Your task to perform on an android device: Open the phone app and click the voicemail tab. Image 0: 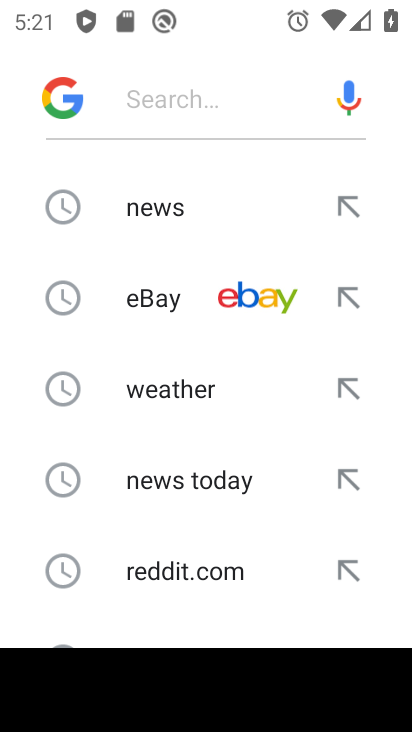
Step 0: press home button
Your task to perform on an android device: Open the phone app and click the voicemail tab. Image 1: 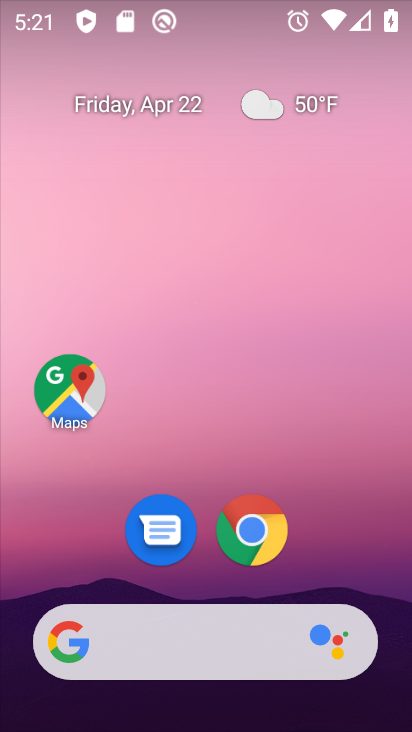
Step 1: drag from (319, 498) to (312, 109)
Your task to perform on an android device: Open the phone app and click the voicemail tab. Image 2: 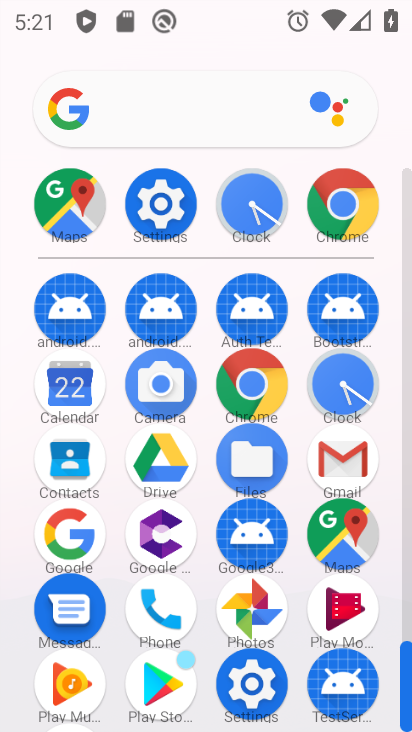
Step 2: click (164, 616)
Your task to perform on an android device: Open the phone app and click the voicemail tab. Image 3: 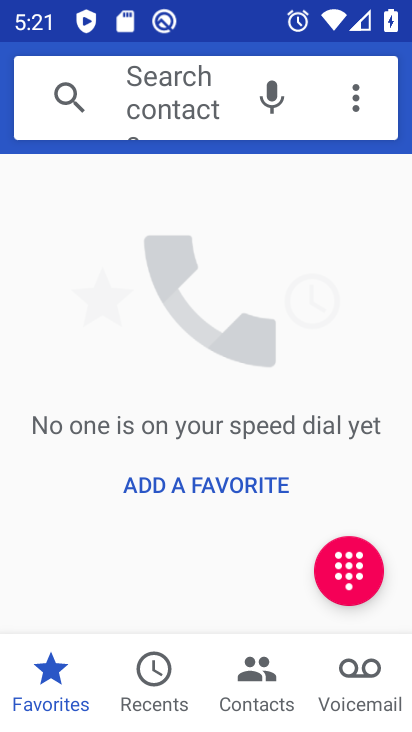
Step 3: click (349, 679)
Your task to perform on an android device: Open the phone app and click the voicemail tab. Image 4: 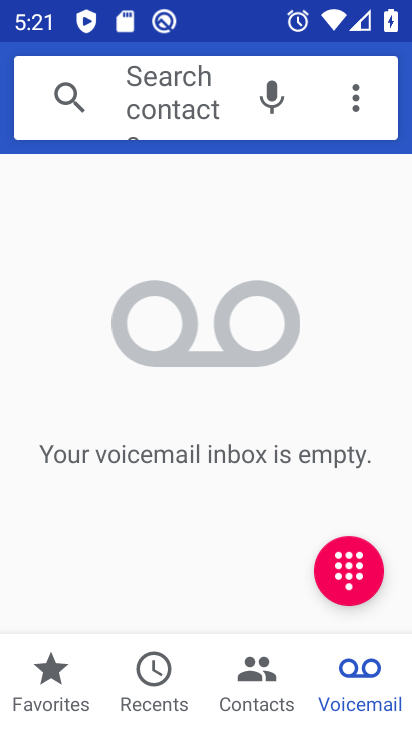
Step 4: task complete